Your task to perform on an android device: see tabs open on other devices in the chrome app Image 0: 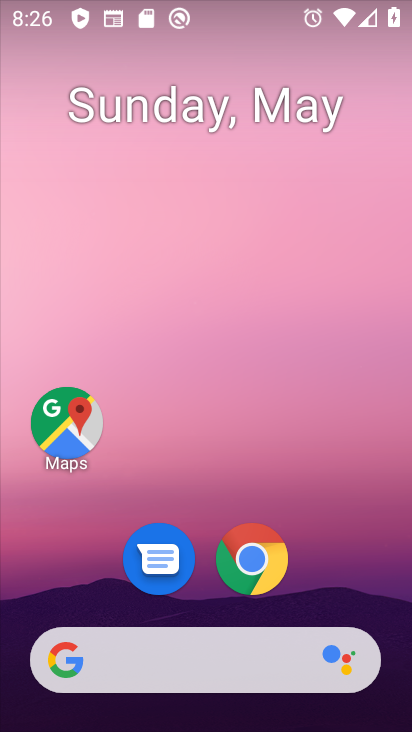
Step 0: press home button
Your task to perform on an android device: see tabs open on other devices in the chrome app Image 1: 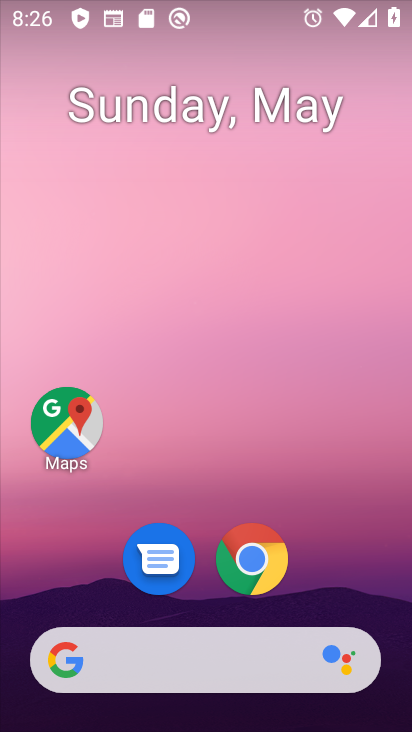
Step 1: click (259, 553)
Your task to perform on an android device: see tabs open on other devices in the chrome app Image 2: 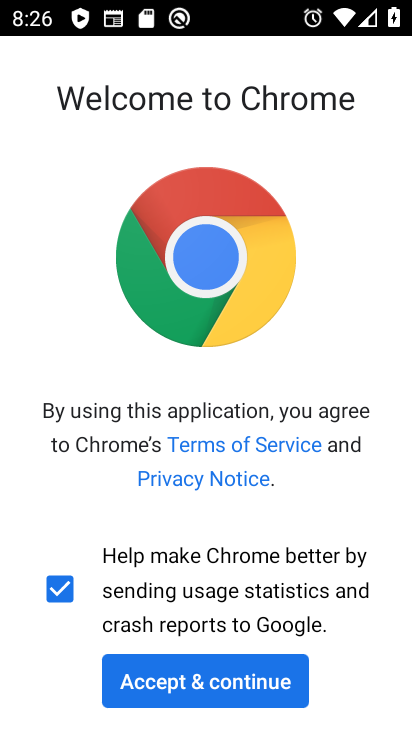
Step 2: click (228, 677)
Your task to perform on an android device: see tabs open on other devices in the chrome app Image 3: 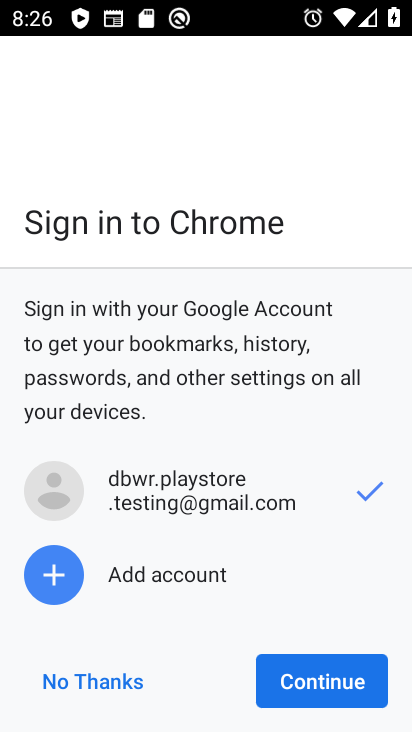
Step 3: click (71, 688)
Your task to perform on an android device: see tabs open on other devices in the chrome app Image 4: 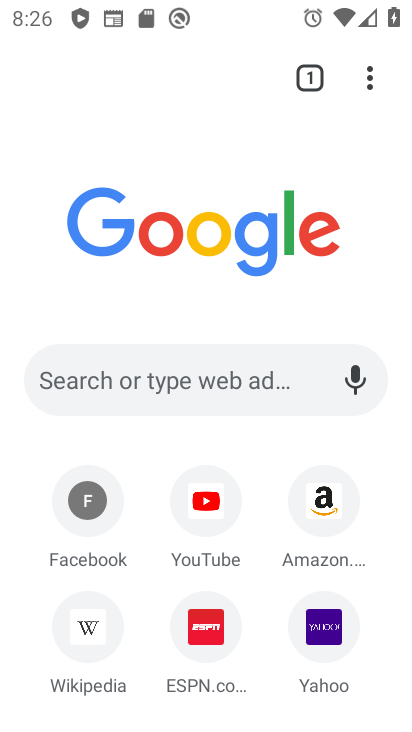
Step 4: click (315, 77)
Your task to perform on an android device: see tabs open on other devices in the chrome app Image 5: 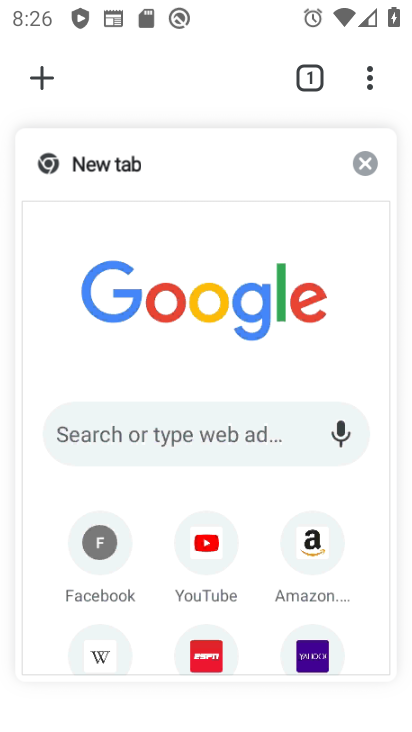
Step 5: task complete